Your task to perform on an android device: search for starred emails in the gmail app Image 0: 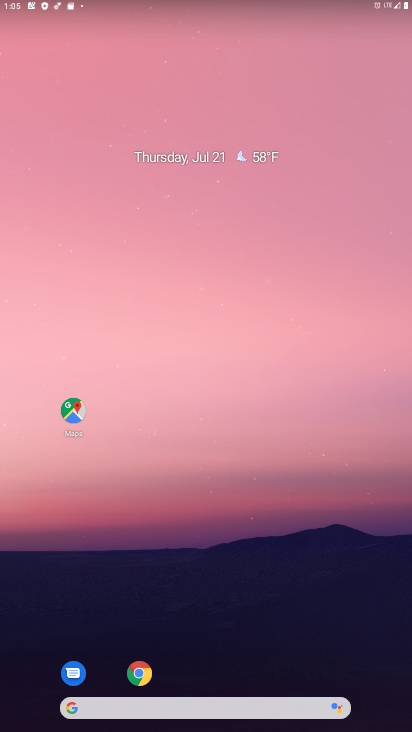
Step 0: drag from (169, 694) to (194, 216)
Your task to perform on an android device: search for starred emails in the gmail app Image 1: 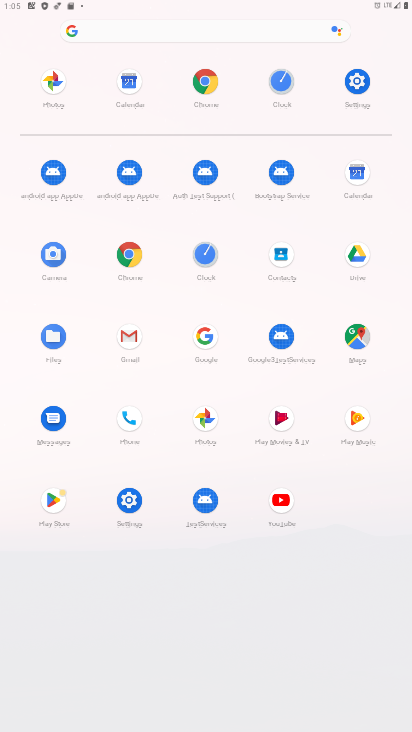
Step 1: click (132, 330)
Your task to perform on an android device: search for starred emails in the gmail app Image 2: 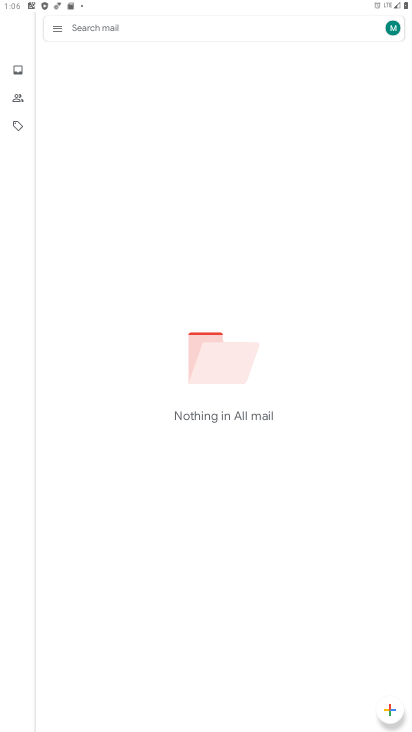
Step 2: click (61, 24)
Your task to perform on an android device: search for starred emails in the gmail app Image 3: 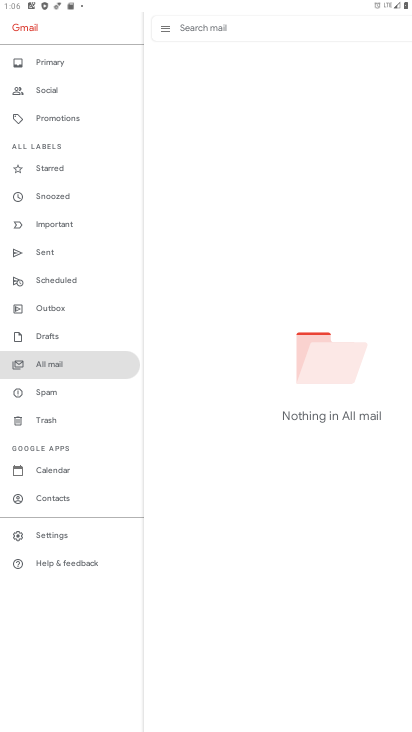
Step 3: click (59, 167)
Your task to perform on an android device: search for starred emails in the gmail app Image 4: 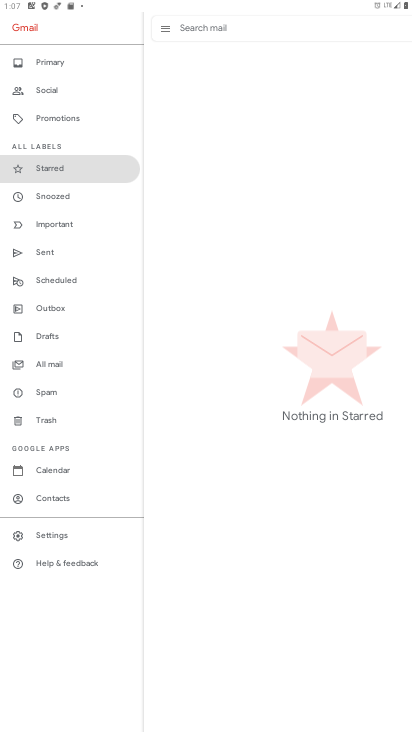
Step 4: task complete